Your task to perform on an android device: change the upload size in google photos Image 0: 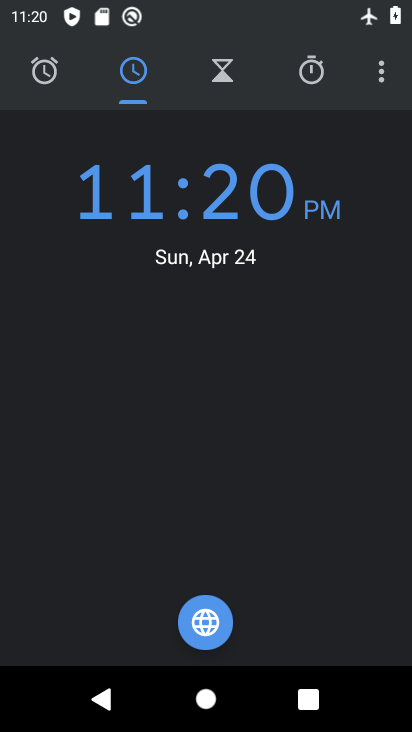
Step 0: press back button
Your task to perform on an android device: change the upload size in google photos Image 1: 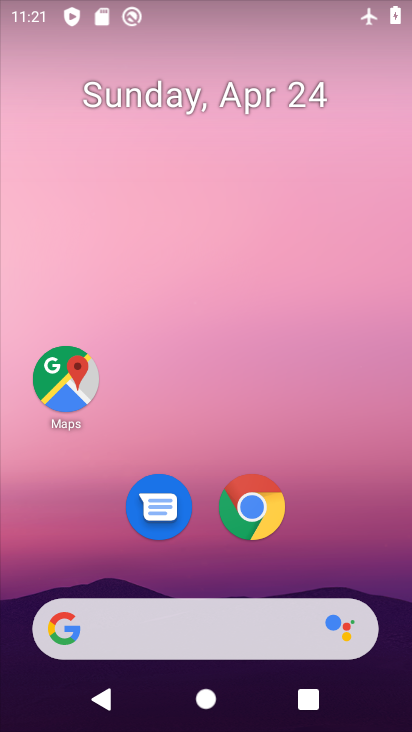
Step 1: drag from (344, 583) to (243, 21)
Your task to perform on an android device: change the upload size in google photos Image 2: 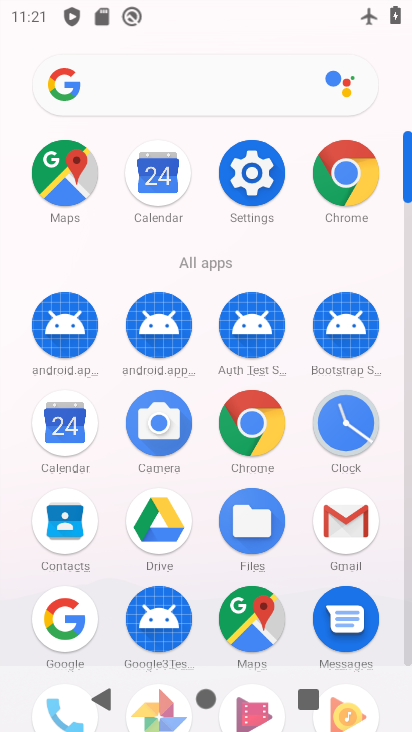
Step 2: drag from (11, 592) to (23, 188)
Your task to perform on an android device: change the upload size in google photos Image 3: 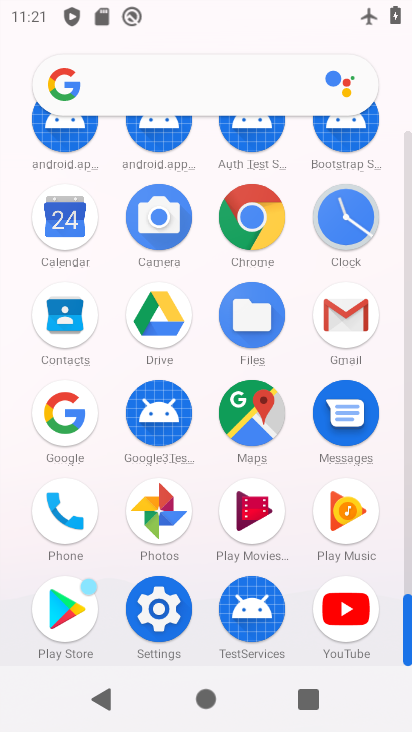
Step 3: click (160, 509)
Your task to perform on an android device: change the upload size in google photos Image 4: 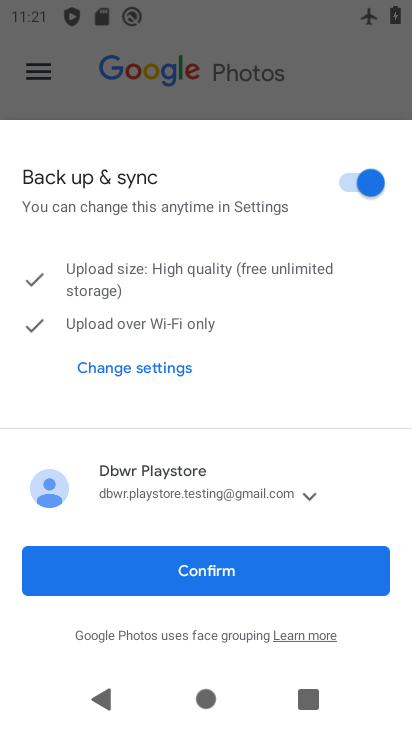
Step 4: click (199, 560)
Your task to perform on an android device: change the upload size in google photos Image 5: 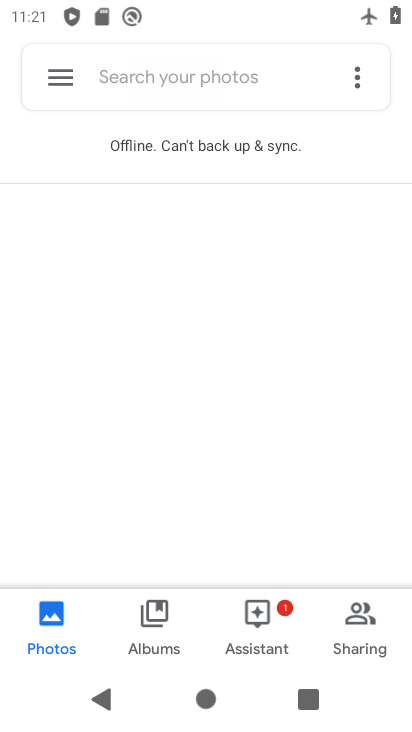
Step 5: click (58, 70)
Your task to perform on an android device: change the upload size in google photos Image 6: 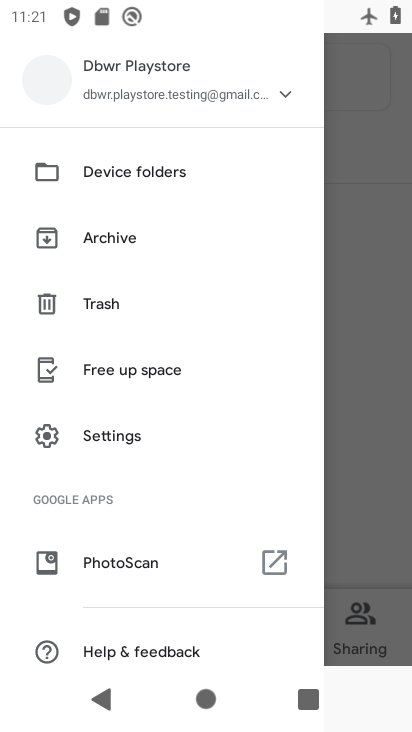
Step 6: click (128, 420)
Your task to perform on an android device: change the upload size in google photos Image 7: 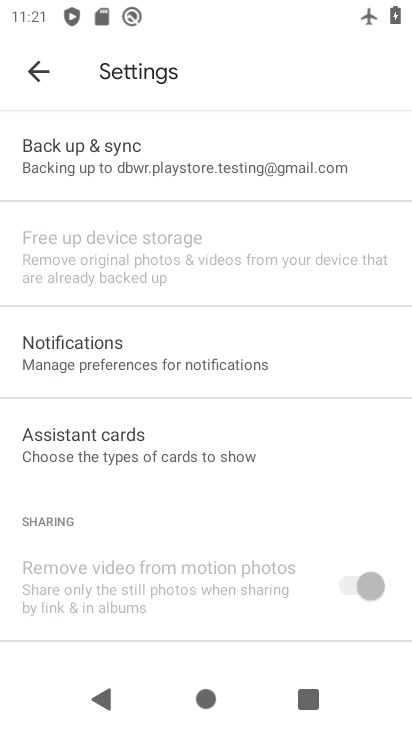
Step 7: drag from (200, 440) to (192, 123)
Your task to perform on an android device: change the upload size in google photos Image 8: 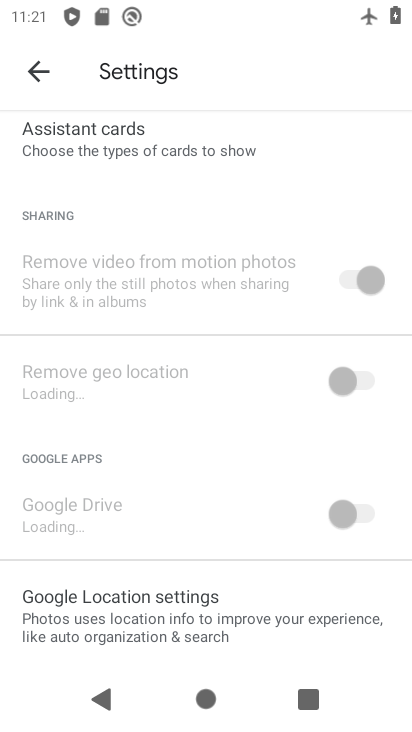
Step 8: drag from (175, 488) to (166, 115)
Your task to perform on an android device: change the upload size in google photos Image 9: 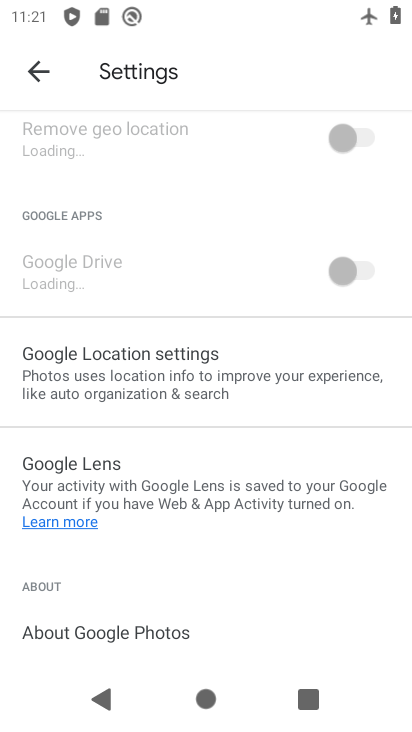
Step 9: drag from (216, 202) to (228, 573)
Your task to perform on an android device: change the upload size in google photos Image 10: 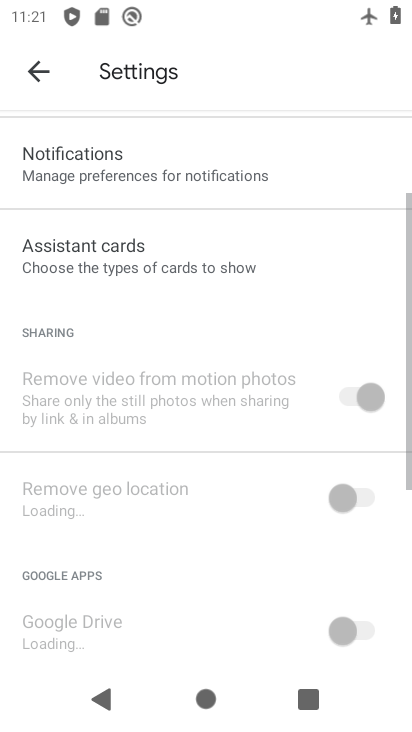
Step 10: drag from (153, 257) to (159, 566)
Your task to perform on an android device: change the upload size in google photos Image 11: 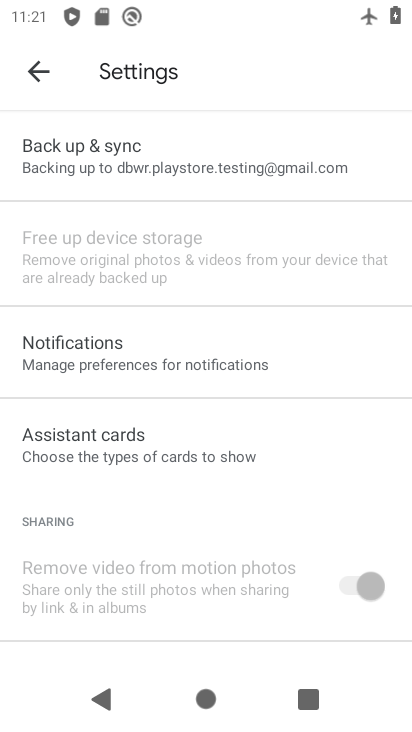
Step 11: click (169, 135)
Your task to perform on an android device: change the upload size in google photos Image 12: 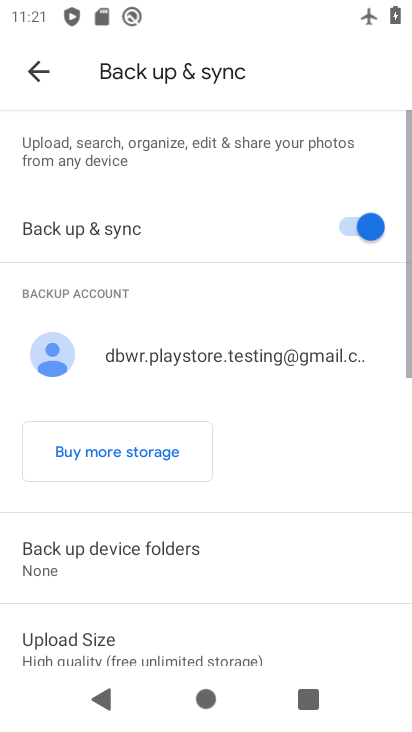
Step 12: drag from (217, 478) to (202, 147)
Your task to perform on an android device: change the upload size in google photos Image 13: 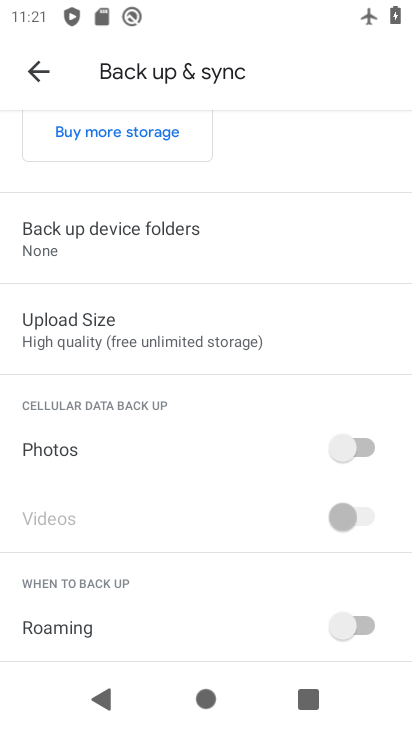
Step 13: click (163, 307)
Your task to perform on an android device: change the upload size in google photos Image 14: 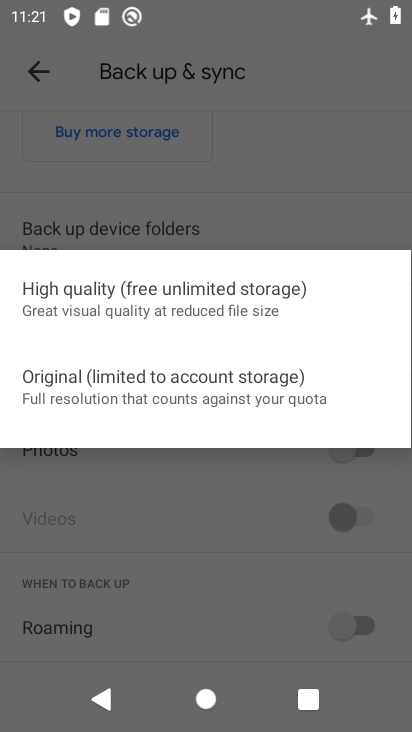
Step 14: click (147, 368)
Your task to perform on an android device: change the upload size in google photos Image 15: 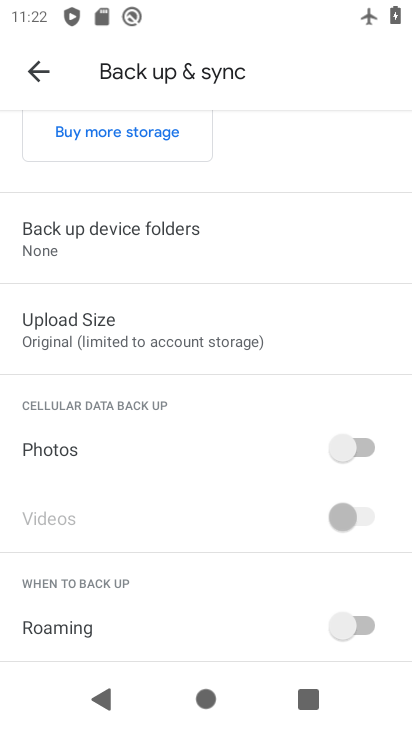
Step 15: task complete